Your task to perform on an android device: show emergency info Image 0: 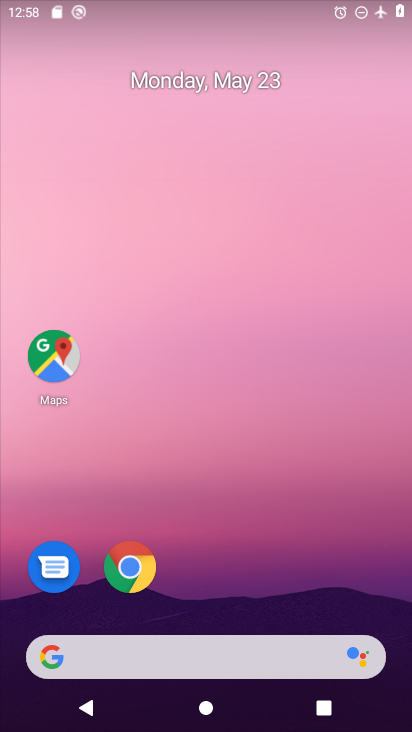
Step 0: drag from (195, 576) to (199, 138)
Your task to perform on an android device: show emergency info Image 1: 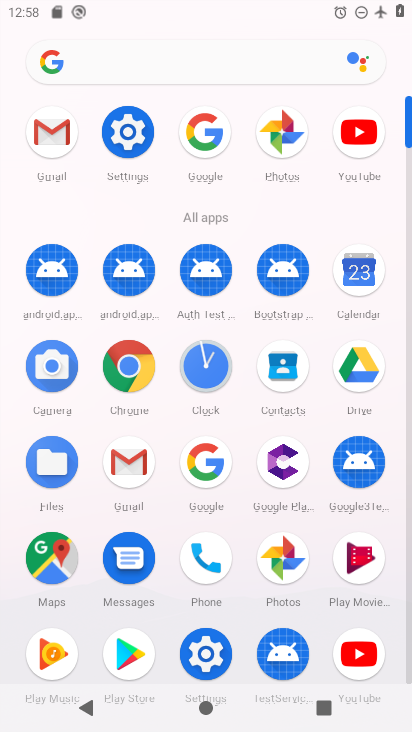
Step 1: click (114, 140)
Your task to perform on an android device: show emergency info Image 2: 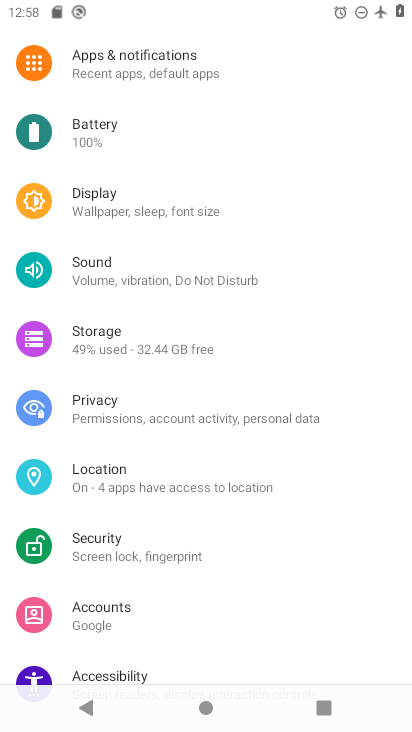
Step 2: drag from (254, 593) to (278, 46)
Your task to perform on an android device: show emergency info Image 3: 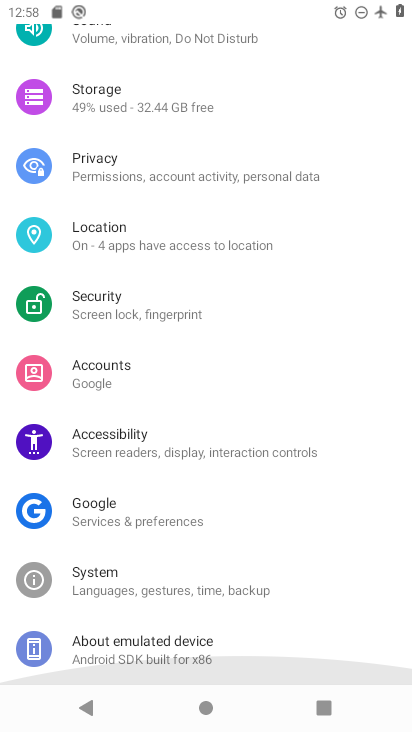
Step 3: drag from (242, 441) to (255, 123)
Your task to perform on an android device: show emergency info Image 4: 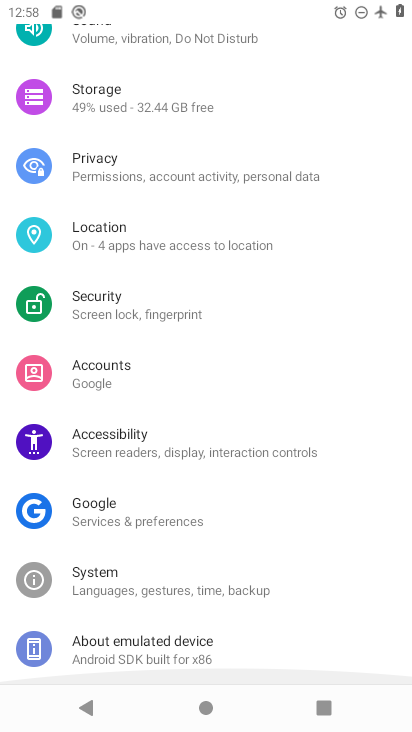
Step 4: click (143, 650)
Your task to perform on an android device: show emergency info Image 5: 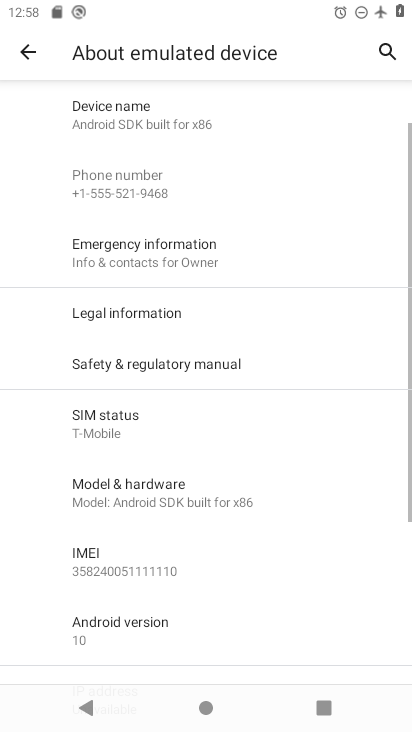
Step 5: click (131, 264)
Your task to perform on an android device: show emergency info Image 6: 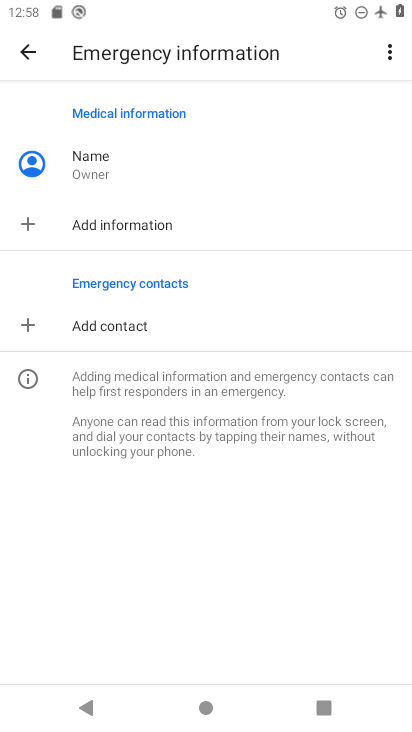
Step 6: task complete